Your task to perform on an android device: open sync settings in chrome Image 0: 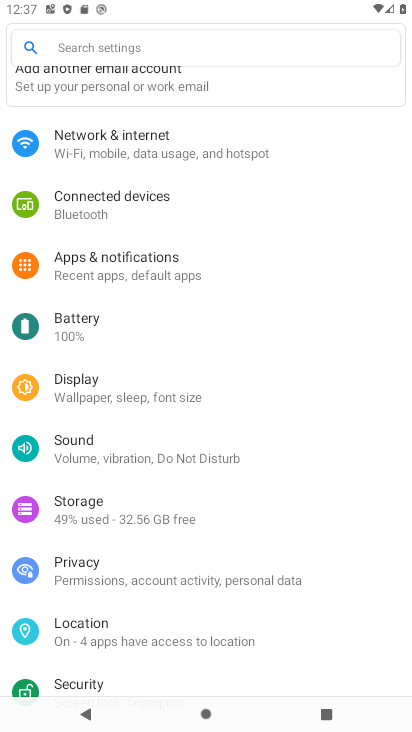
Step 0: press home button
Your task to perform on an android device: open sync settings in chrome Image 1: 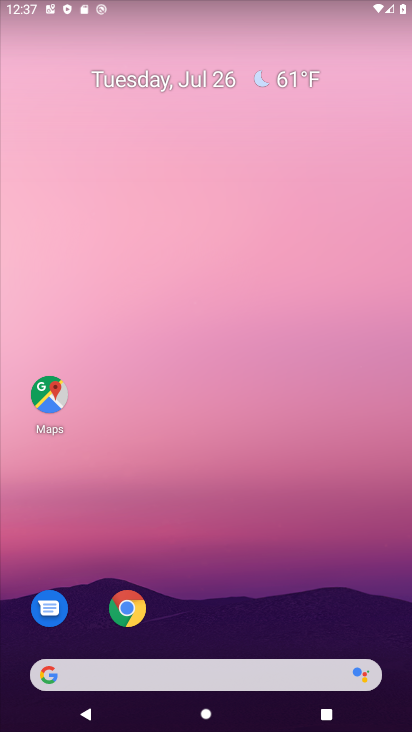
Step 1: drag from (356, 605) to (373, 164)
Your task to perform on an android device: open sync settings in chrome Image 2: 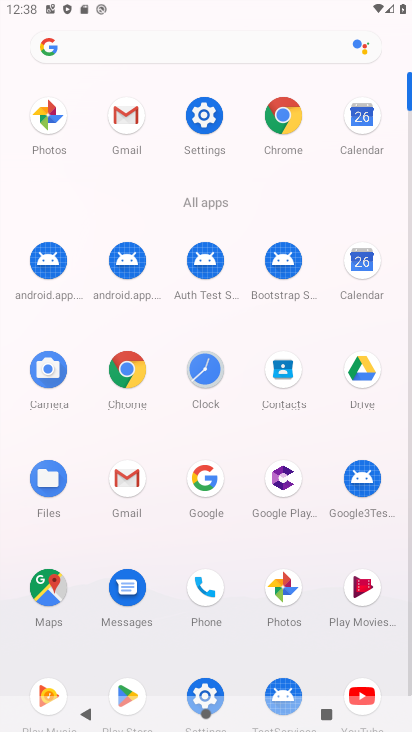
Step 2: click (281, 120)
Your task to perform on an android device: open sync settings in chrome Image 3: 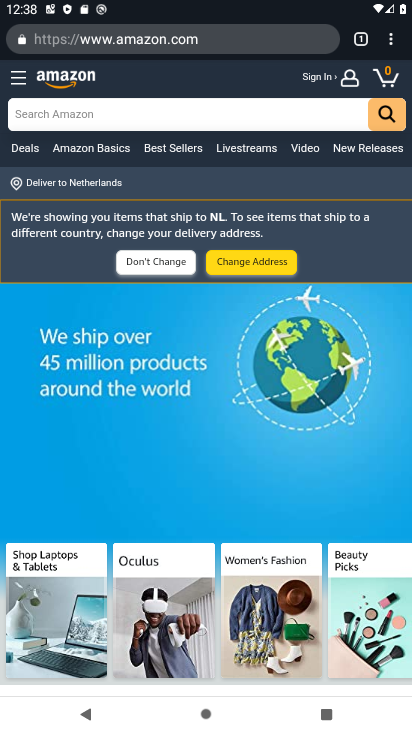
Step 3: click (391, 44)
Your task to perform on an android device: open sync settings in chrome Image 4: 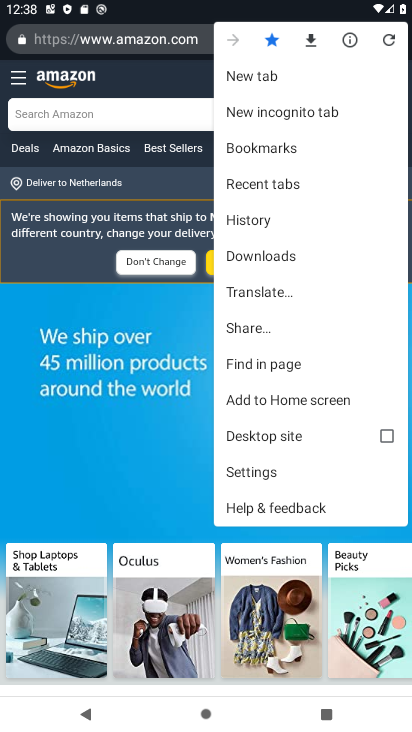
Step 4: click (262, 473)
Your task to perform on an android device: open sync settings in chrome Image 5: 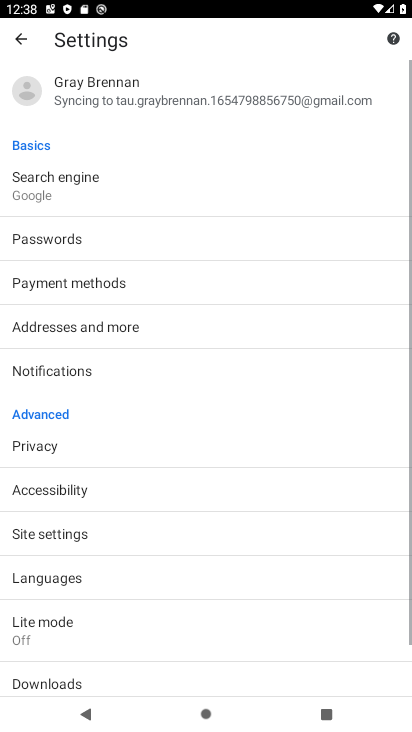
Step 5: drag from (326, 480) to (326, 394)
Your task to perform on an android device: open sync settings in chrome Image 6: 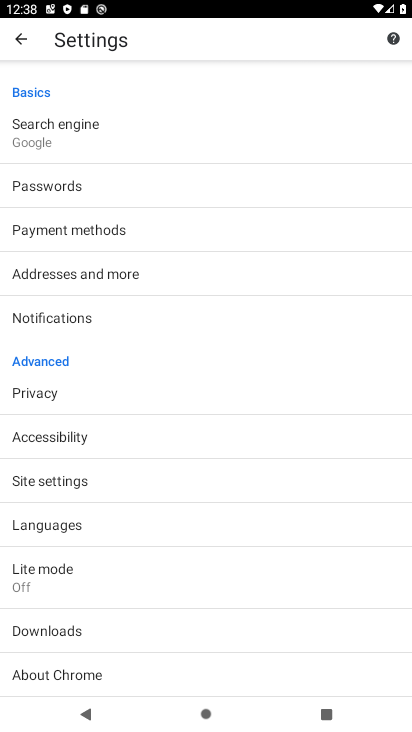
Step 6: drag from (303, 482) to (306, 332)
Your task to perform on an android device: open sync settings in chrome Image 7: 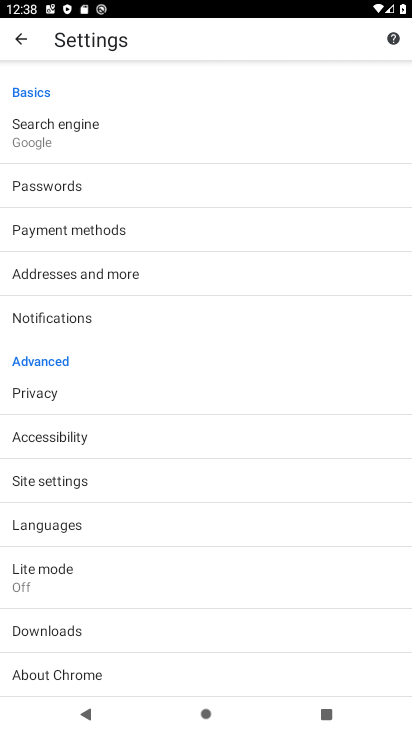
Step 7: drag from (305, 501) to (300, 355)
Your task to perform on an android device: open sync settings in chrome Image 8: 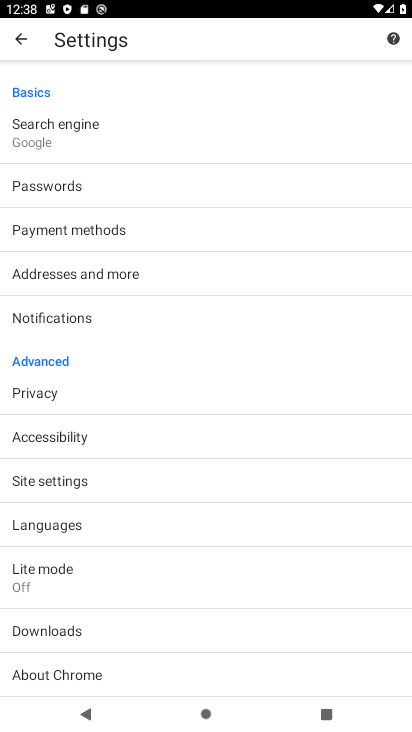
Step 8: drag from (295, 289) to (292, 367)
Your task to perform on an android device: open sync settings in chrome Image 9: 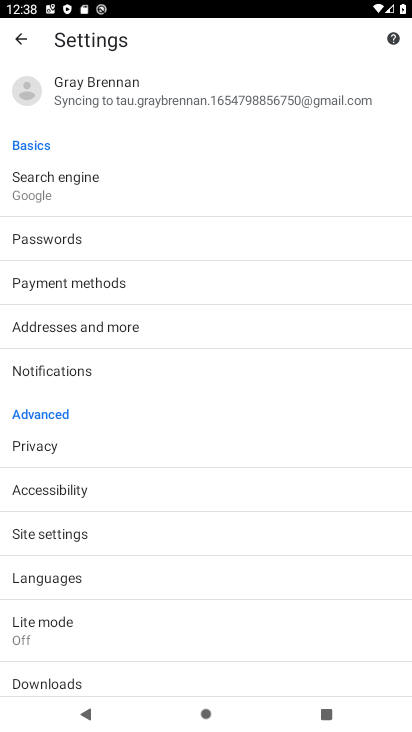
Step 9: drag from (286, 219) to (287, 341)
Your task to perform on an android device: open sync settings in chrome Image 10: 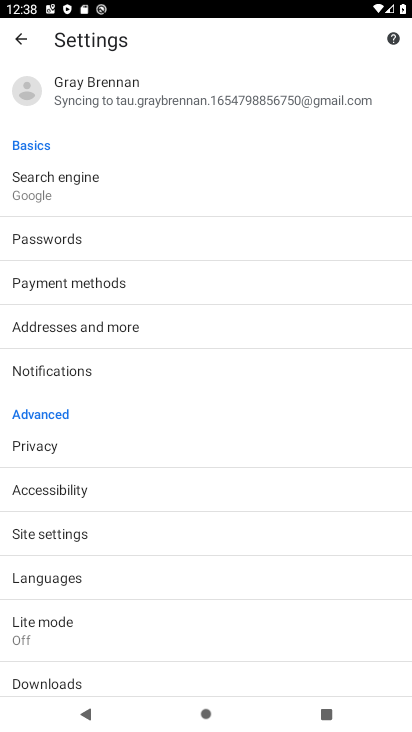
Step 10: drag from (280, 490) to (279, 328)
Your task to perform on an android device: open sync settings in chrome Image 11: 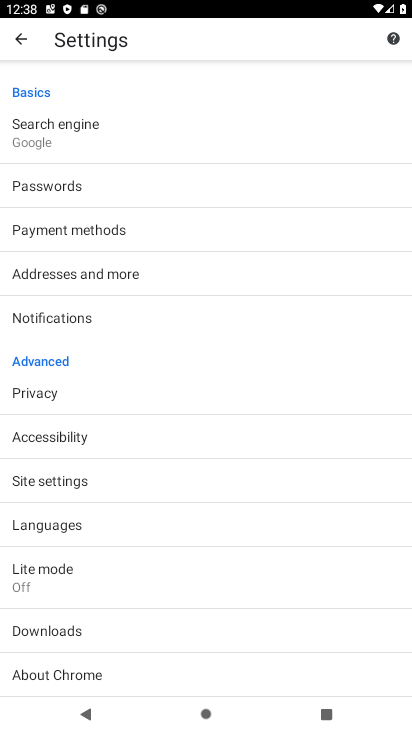
Step 11: click (144, 474)
Your task to perform on an android device: open sync settings in chrome Image 12: 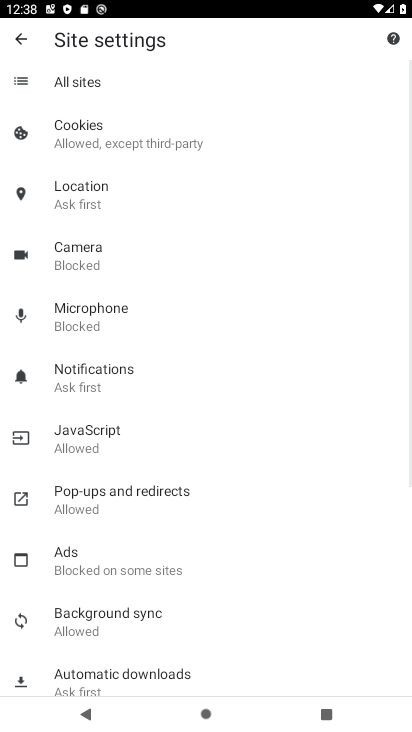
Step 12: drag from (193, 510) to (197, 408)
Your task to perform on an android device: open sync settings in chrome Image 13: 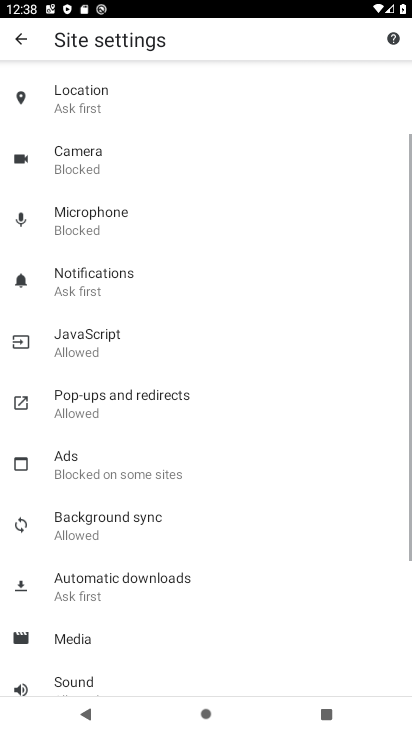
Step 13: drag from (247, 518) to (255, 430)
Your task to perform on an android device: open sync settings in chrome Image 14: 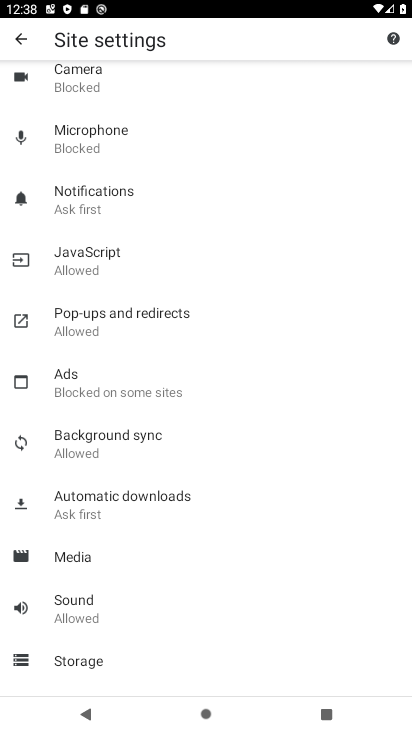
Step 14: drag from (281, 564) to (289, 454)
Your task to perform on an android device: open sync settings in chrome Image 15: 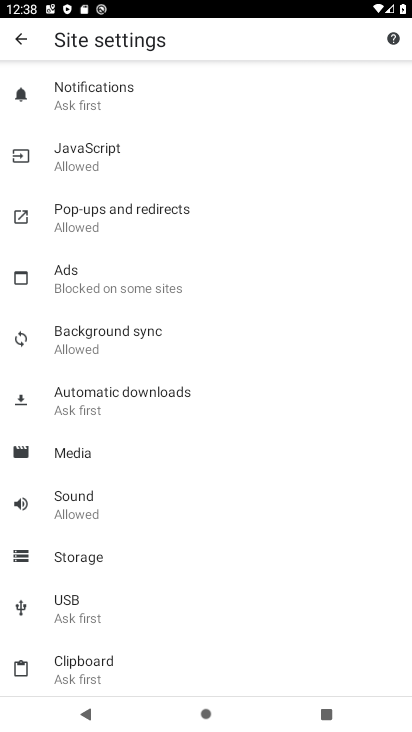
Step 15: click (168, 342)
Your task to perform on an android device: open sync settings in chrome Image 16: 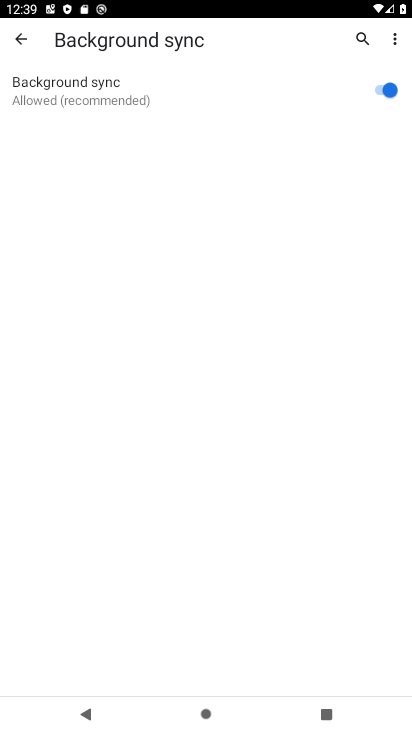
Step 16: task complete